Your task to perform on an android device: change timer sound Image 0: 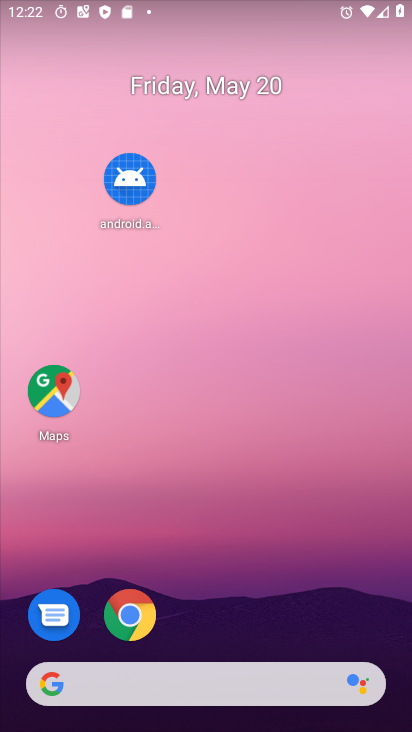
Step 0: drag from (339, 630) to (296, 201)
Your task to perform on an android device: change timer sound Image 1: 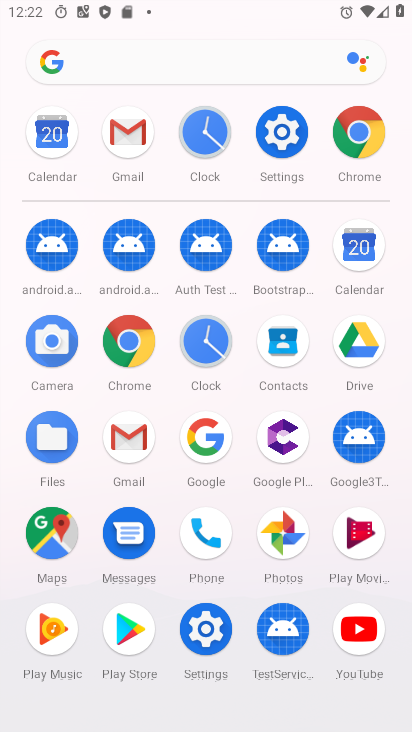
Step 1: click (207, 634)
Your task to perform on an android device: change timer sound Image 2: 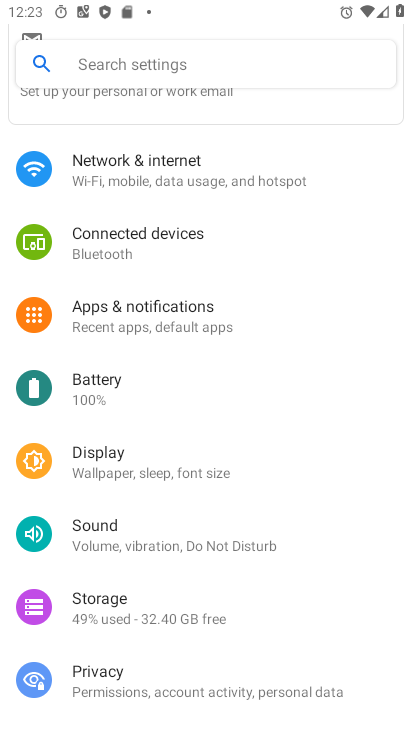
Step 2: click (146, 545)
Your task to perform on an android device: change timer sound Image 3: 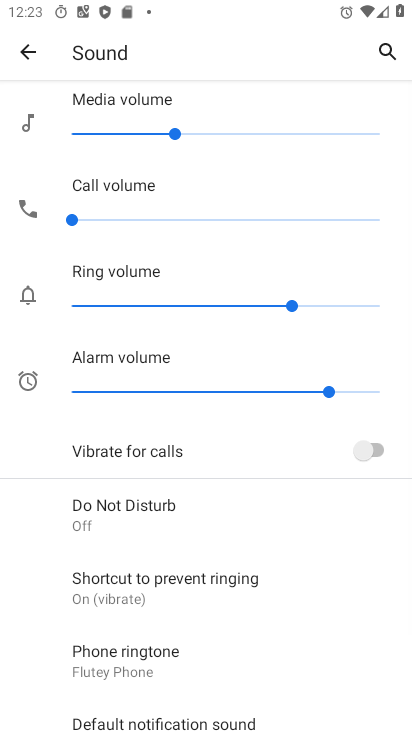
Step 3: drag from (269, 624) to (263, 134)
Your task to perform on an android device: change timer sound Image 4: 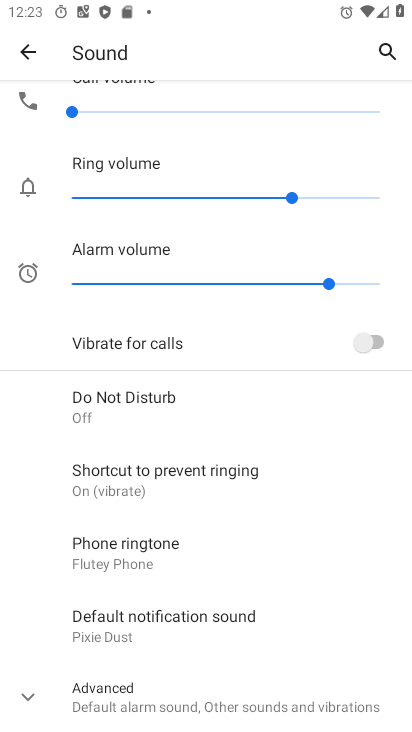
Step 4: drag from (268, 679) to (256, 190)
Your task to perform on an android device: change timer sound Image 5: 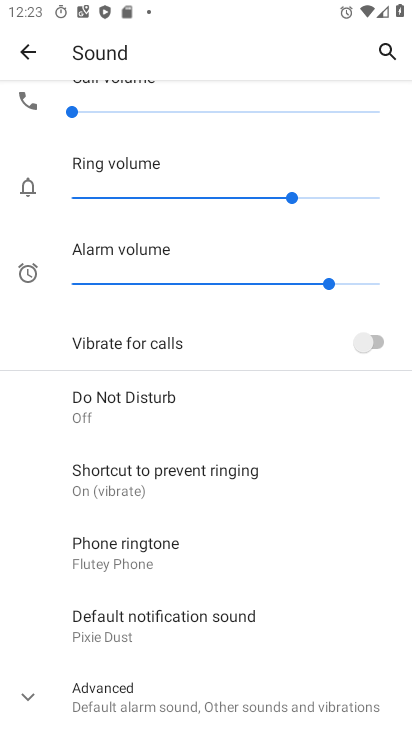
Step 5: press home button
Your task to perform on an android device: change timer sound Image 6: 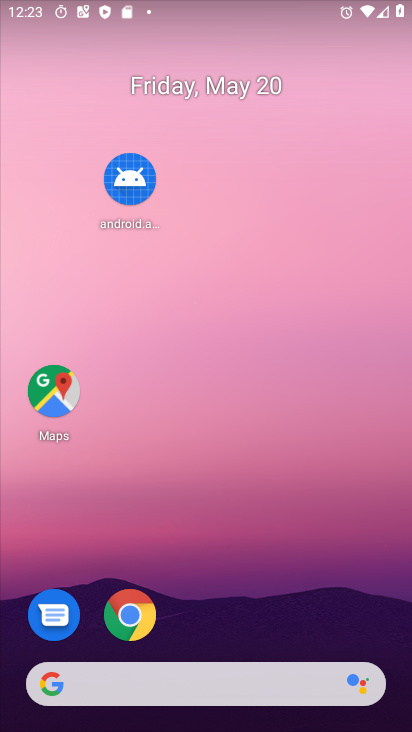
Step 6: drag from (331, 632) to (327, 21)
Your task to perform on an android device: change timer sound Image 7: 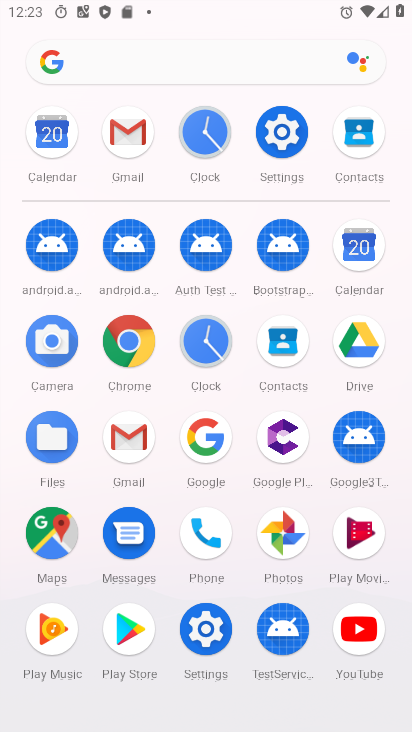
Step 7: click (208, 347)
Your task to perform on an android device: change timer sound Image 8: 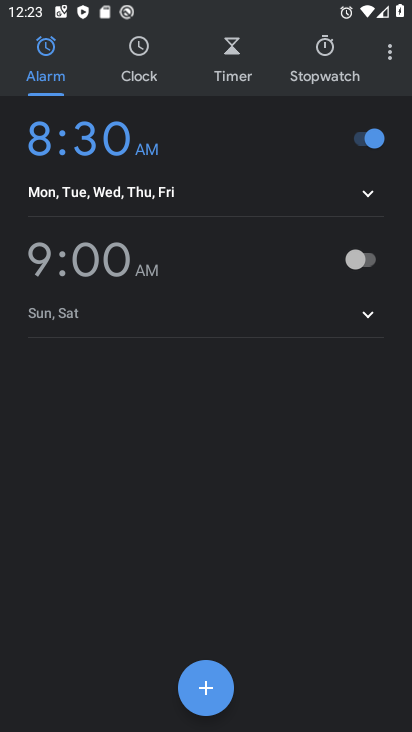
Step 8: click (389, 67)
Your task to perform on an android device: change timer sound Image 9: 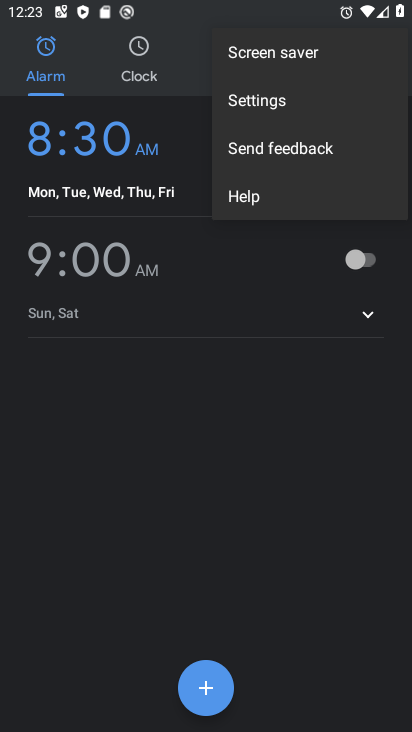
Step 9: click (279, 111)
Your task to perform on an android device: change timer sound Image 10: 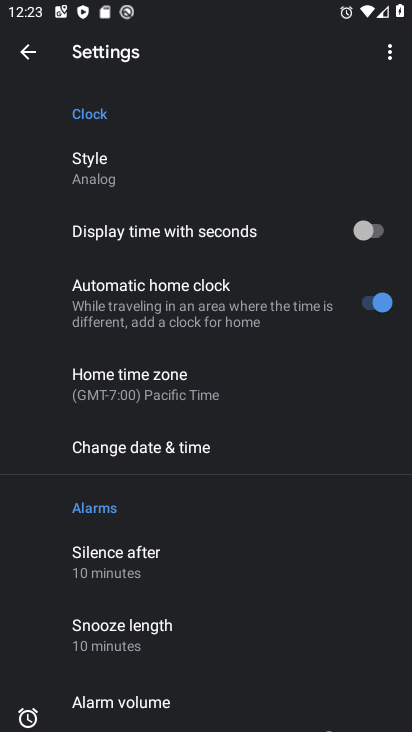
Step 10: drag from (296, 585) to (286, 210)
Your task to perform on an android device: change timer sound Image 11: 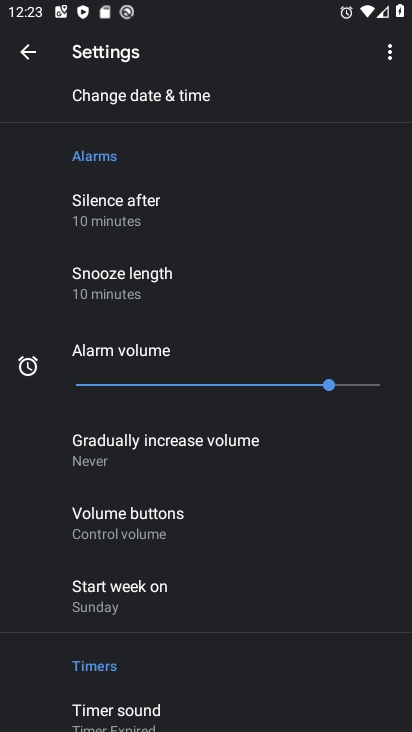
Step 11: drag from (270, 593) to (262, 391)
Your task to perform on an android device: change timer sound Image 12: 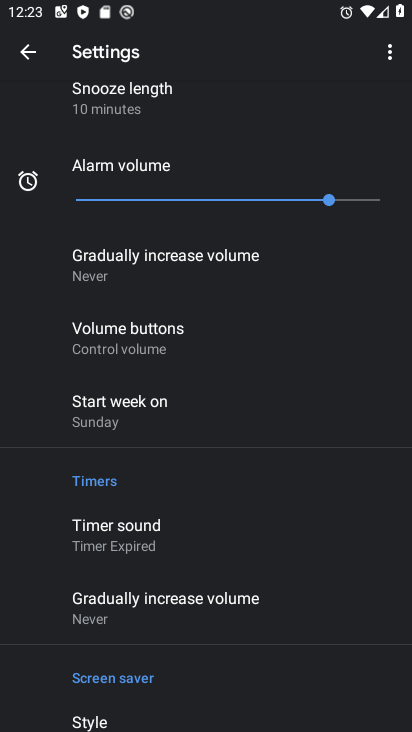
Step 12: click (149, 517)
Your task to perform on an android device: change timer sound Image 13: 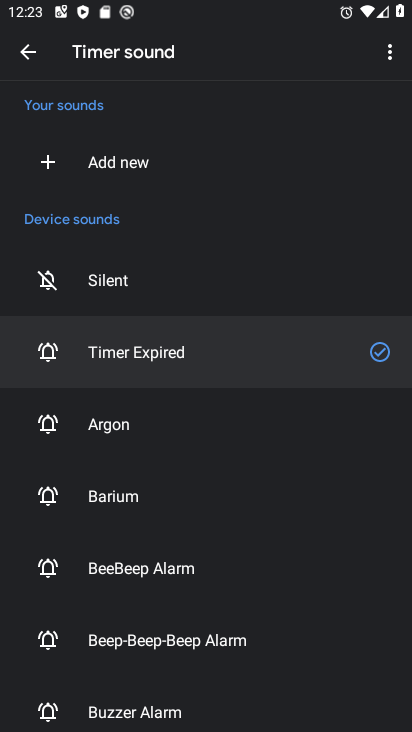
Step 13: click (206, 647)
Your task to perform on an android device: change timer sound Image 14: 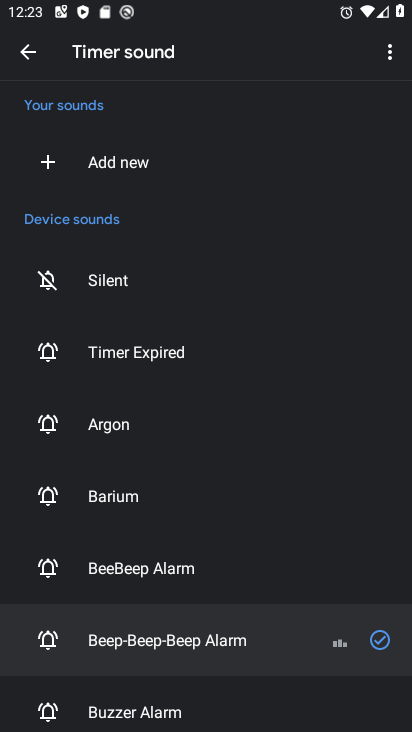
Step 14: task complete